Your task to perform on an android device: toggle pop-ups in chrome Image 0: 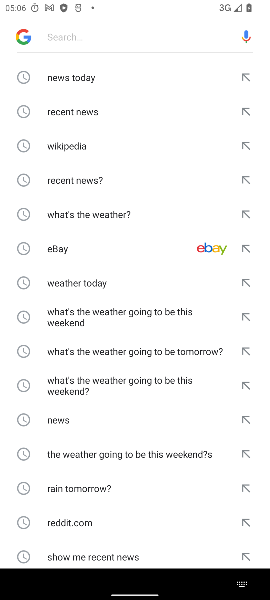
Step 0: press home button
Your task to perform on an android device: toggle pop-ups in chrome Image 1: 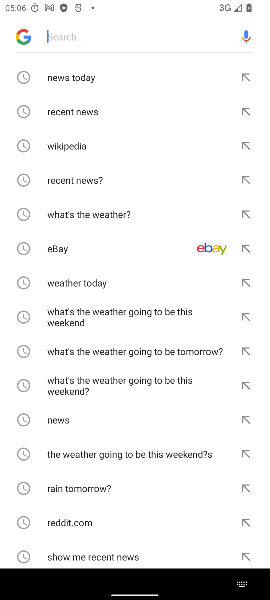
Step 1: press home button
Your task to perform on an android device: toggle pop-ups in chrome Image 2: 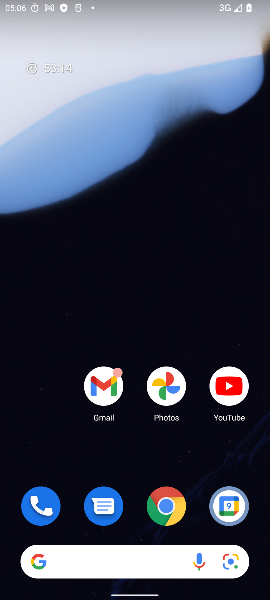
Step 2: drag from (119, 479) to (254, 8)
Your task to perform on an android device: toggle pop-ups in chrome Image 3: 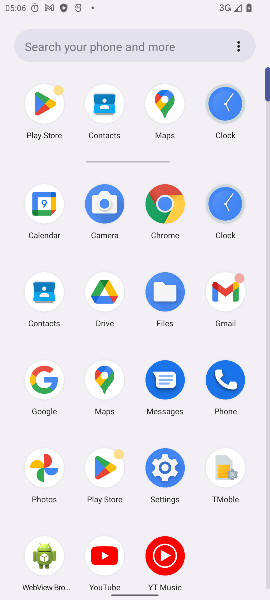
Step 3: click (173, 211)
Your task to perform on an android device: toggle pop-ups in chrome Image 4: 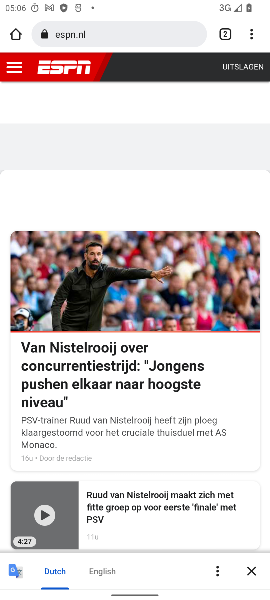
Step 4: drag from (253, 42) to (154, 437)
Your task to perform on an android device: toggle pop-ups in chrome Image 5: 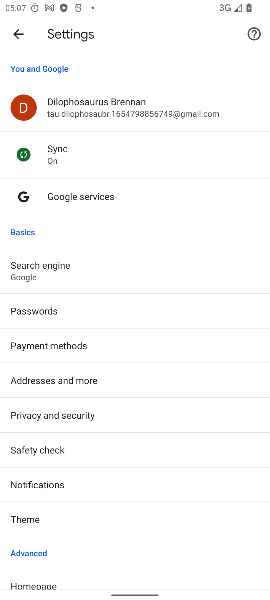
Step 5: drag from (118, 515) to (173, 134)
Your task to perform on an android device: toggle pop-ups in chrome Image 6: 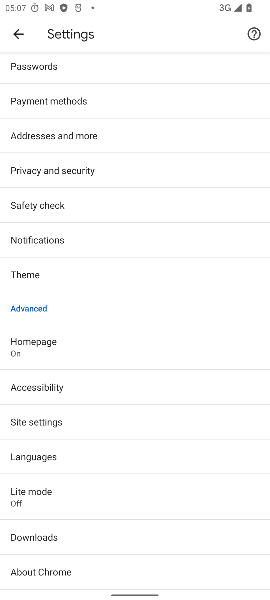
Step 6: click (107, 426)
Your task to perform on an android device: toggle pop-ups in chrome Image 7: 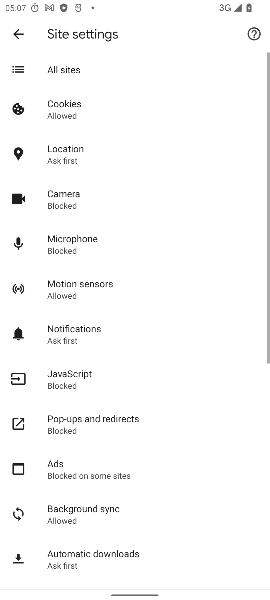
Step 7: click (106, 424)
Your task to perform on an android device: toggle pop-ups in chrome Image 8: 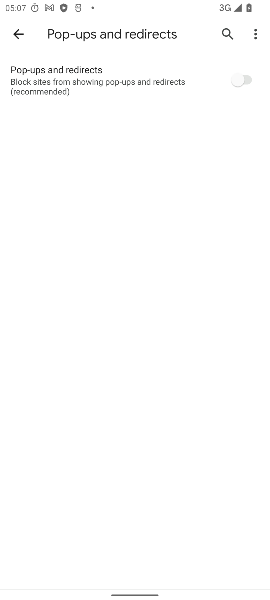
Step 8: click (245, 84)
Your task to perform on an android device: toggle pop-ups in chrome Image 9: 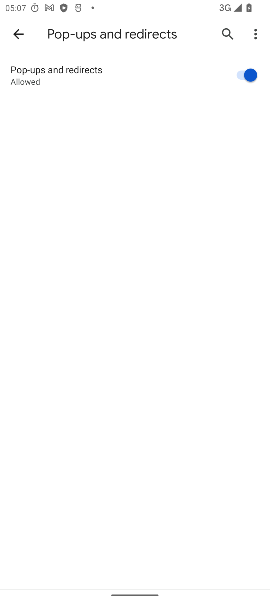
Step 9: task complete